Your task to perform on an android device: Open accessibility settings Image 0: 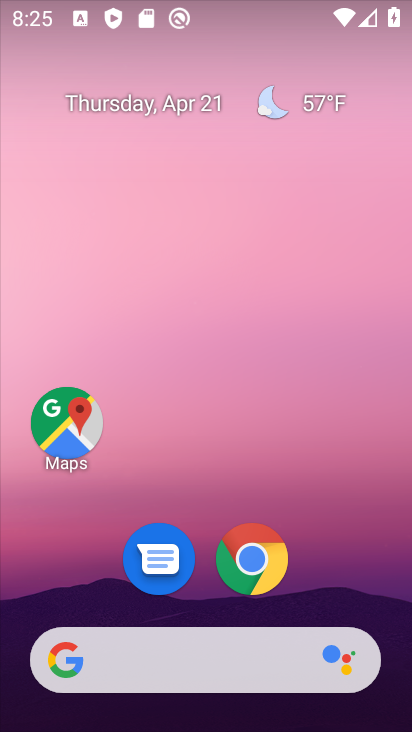
Step 0: drag from (209, 673) to (139, 36)
Your task to perform on an android device: Open accessibility settings Image 1: 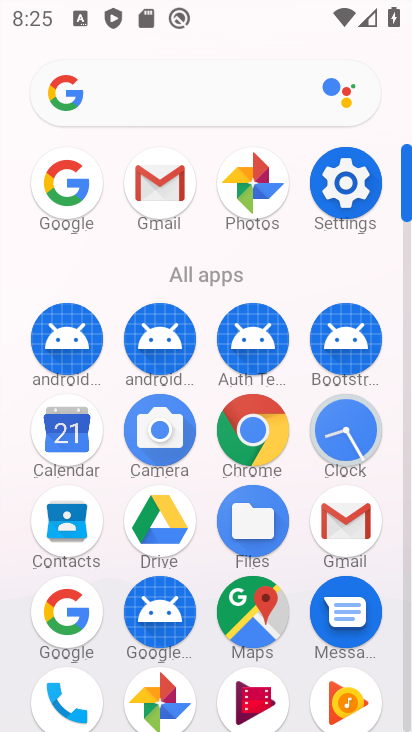
Step 1: click (352, 177)
Your task to perform on an android device: Open accessibility settings Image 2: 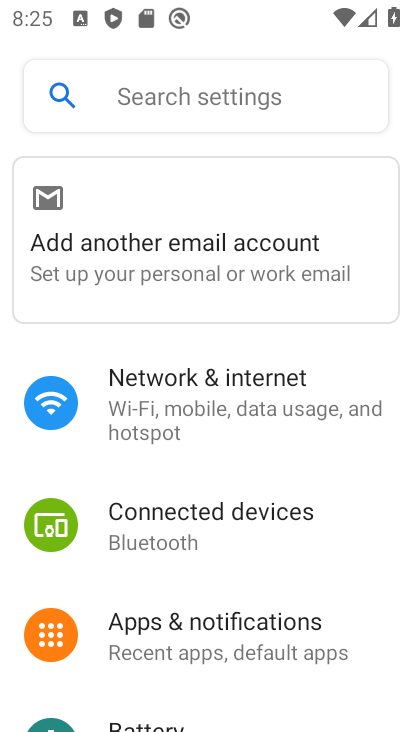
Step 2: drag from (317, 608) to (350, 7)
Your task to perform on an android device: Open accessibility settings Image 3: 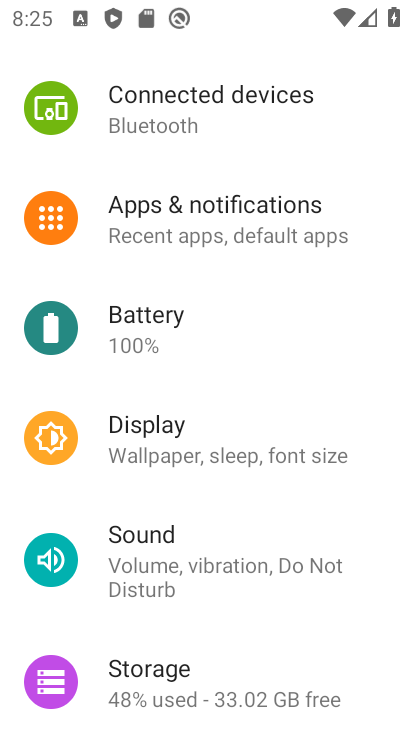
Step 3: drag from (295, 636) to (278, 36)
Your task to perform on an android device: Open accessibility settings Image 4: 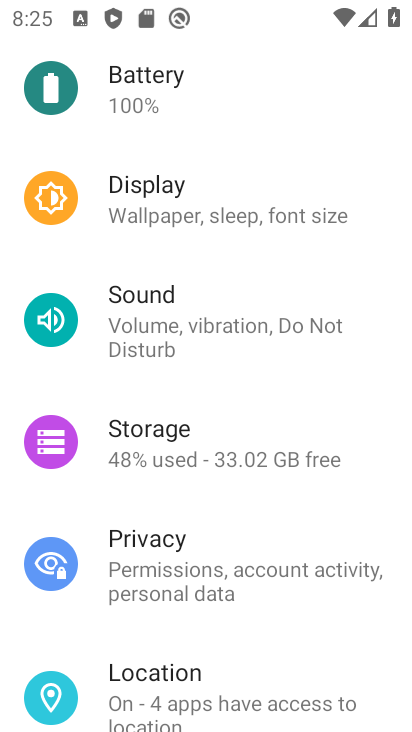
Step 4: drag from (291, 677) to (227, 0)
Your task to perform on an android device: Open accessibility settings Image 5: 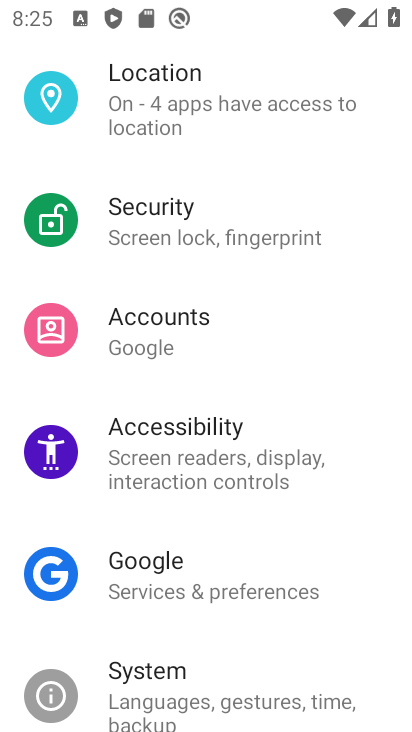
Step 5: click (173, 472)
Your task to perform on an android device: Open accessibility settings Image 6: 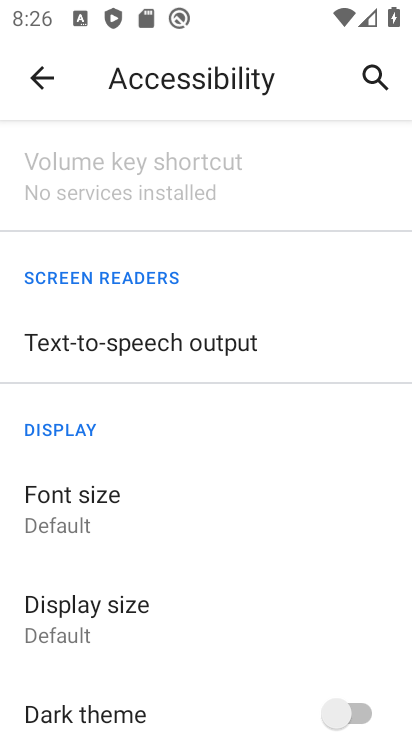
Step 6: task complete